Your task to perform on an android device: turn off translation in the chrome app Image 0: 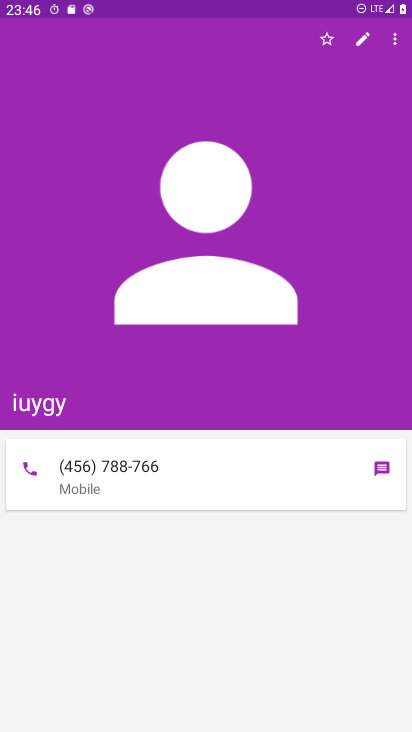
Step 0: press home button
Your task to perform on an android device: turn off translation in the chrome app Image 1: 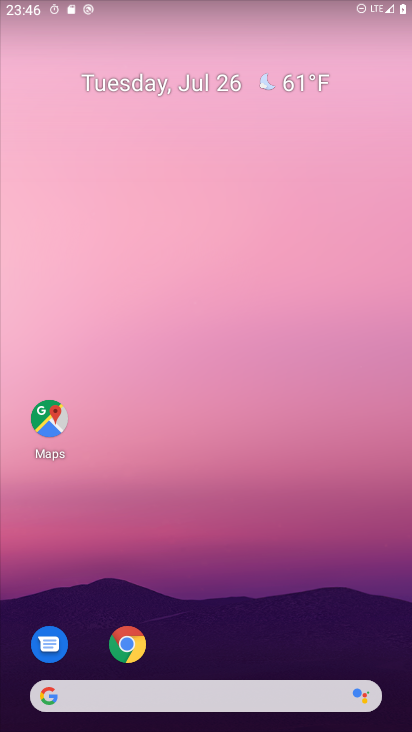
Step 1: click (133, 644)
Your task to perform on an android device: turn off translation in the chrome app Image 2: 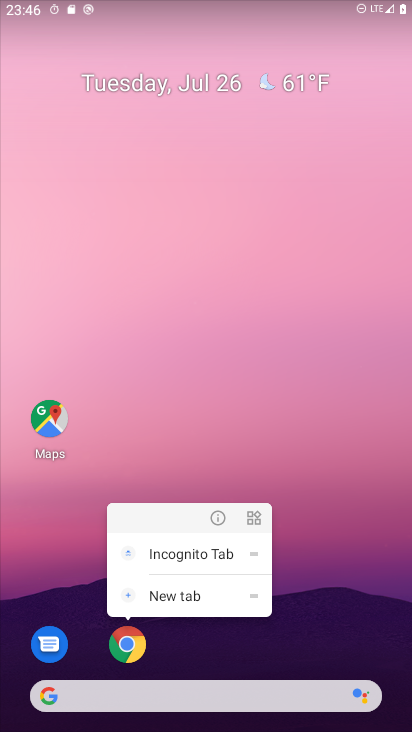
Step 2: click (133, 644)
Your task to perform on an android device: turn off translation in the chrome app Image 3: 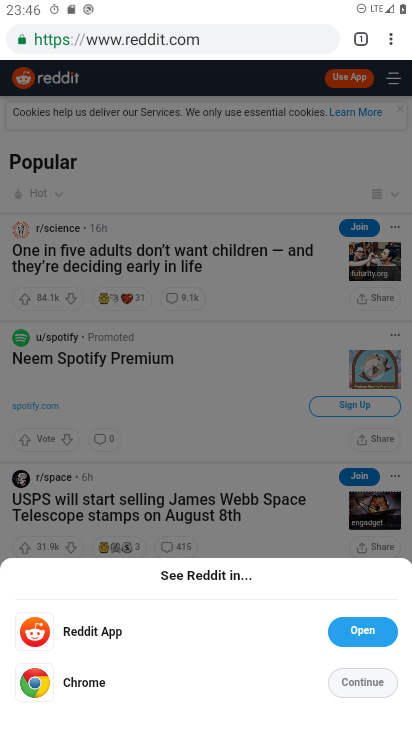
Step 3: drag from (392, 33) to (263, 485)
Your task to perform on an android device: turn off translation in the chrome app Image 4: 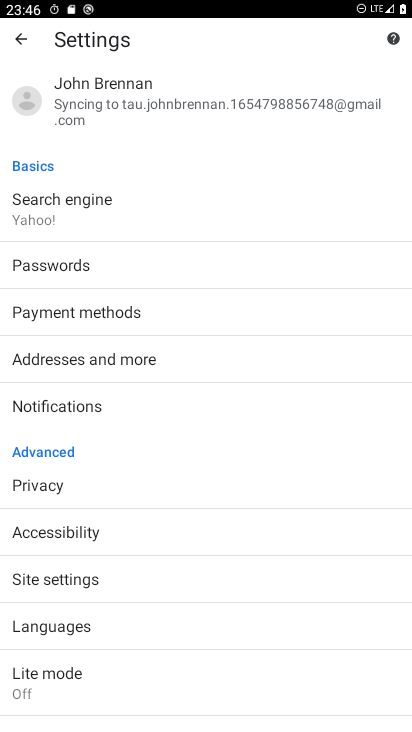
Step 4: click (110, 622)
Your task to perform on an android device: turn off translation in the chrome app Image 5: 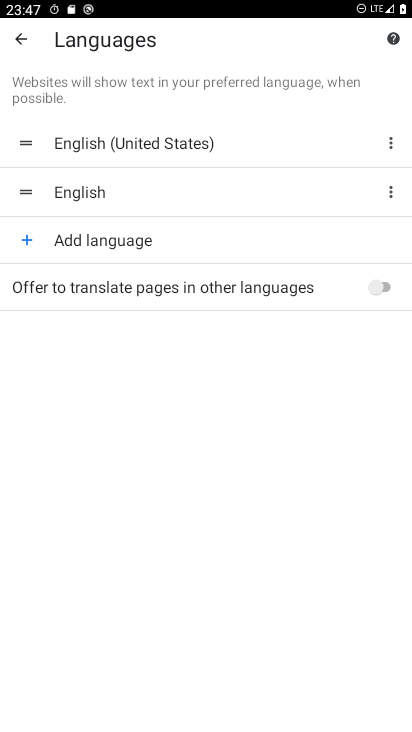
Step 5: task complete